Your task to perform on an android device: Open ESPN.com Image 0: 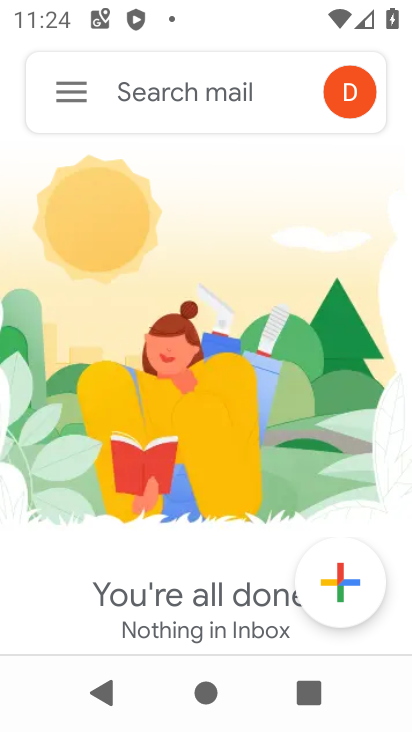
Step 0: press home button
Your task to perform on an android device: Open ESPN.com Image 1: 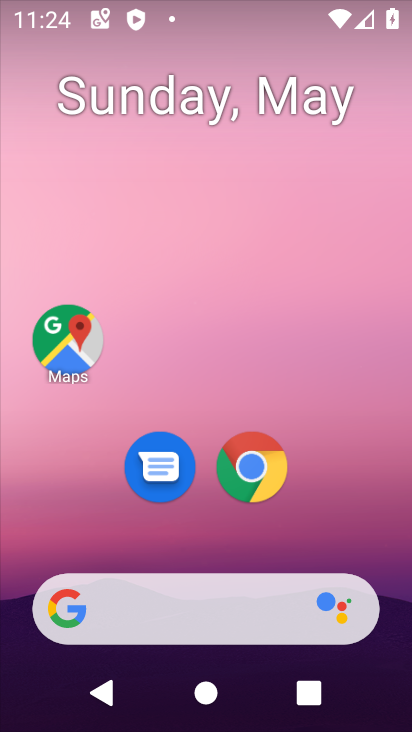
Step 1: click (253, 469)
Your task to perform on an android device: Open ESPN.com Image 2: 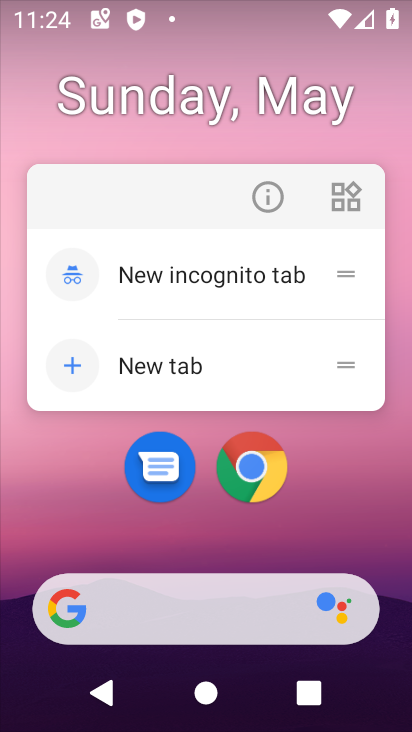
Step 2: click (253, 469)
Your task to perform on an android device: Open ESPN.com Image 3: 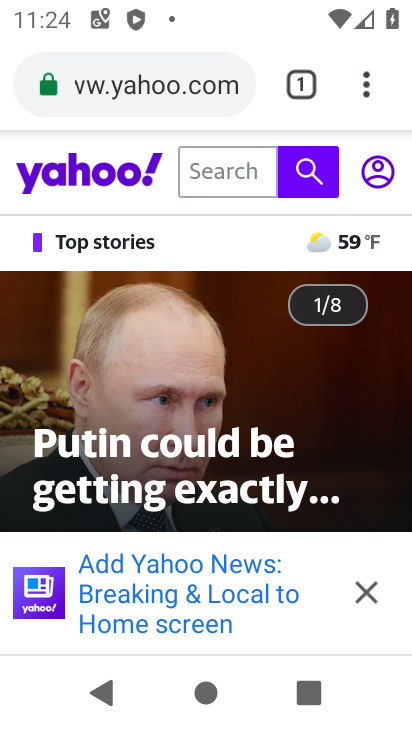
Step 3: click (104, 90)
Your task to perform on an android device: Open ESPN.com Image 4: 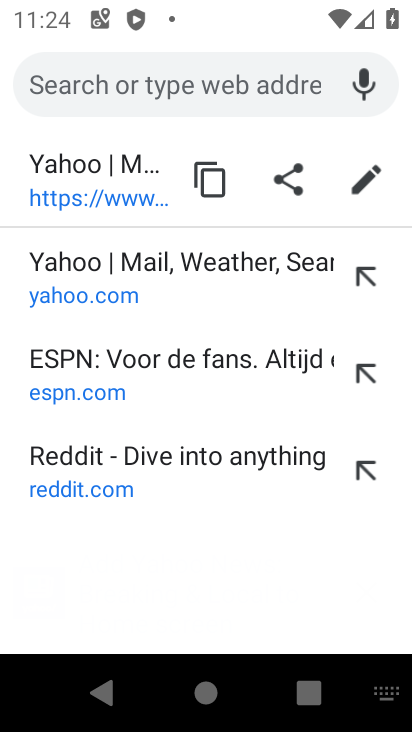
Step 4: click (78, 363)
Your task to perform on an android device: Open ESPN.com Image 5: 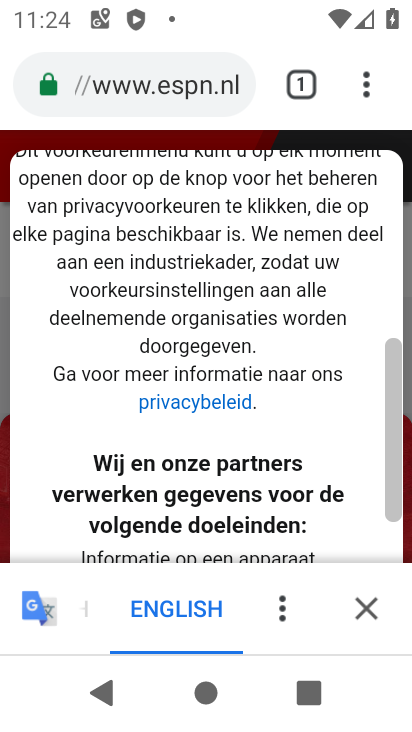
Step 5: task complete